Your task to perform on an android device: turn smart compose on in the gmail app Image 0: 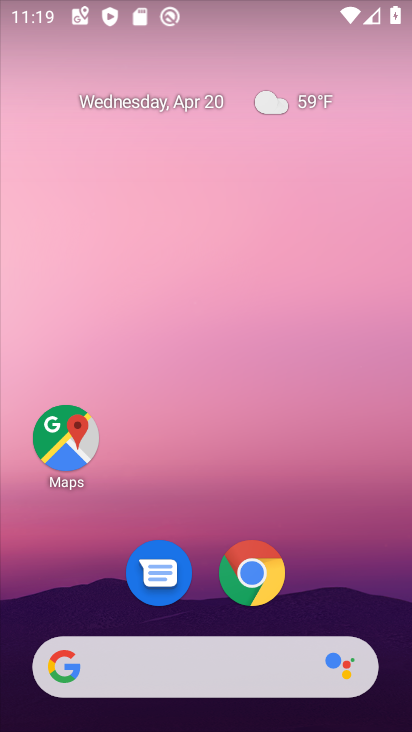
Step 0: drag from (353, 618) to (327, 9)
Your task to perform on an android device: turn smart compose on in the gmail app Image 1: 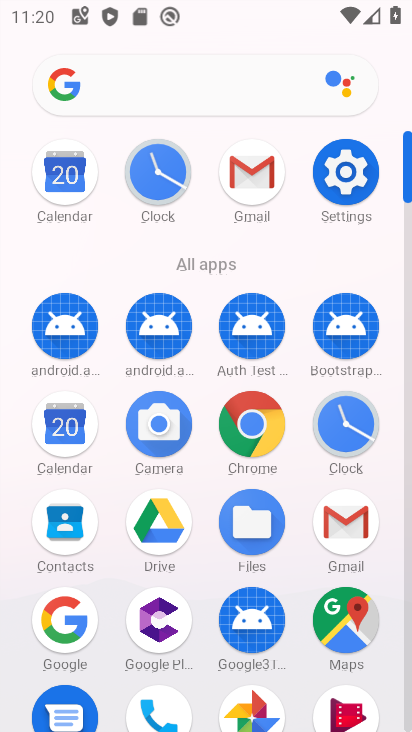
Step 1: click (253, 182)
Your task to perform on an android device: turn smart compose on in the gmail app Image 2: 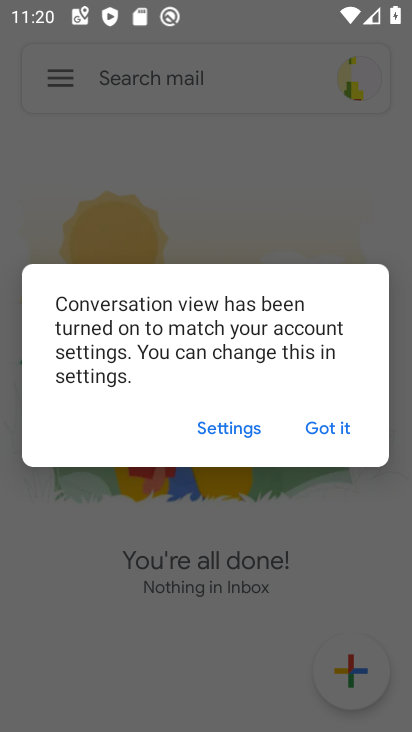
Step 2: click (323, 436)
Your task to perform on an android device: turn smart compose on in the gmail app Image 3: 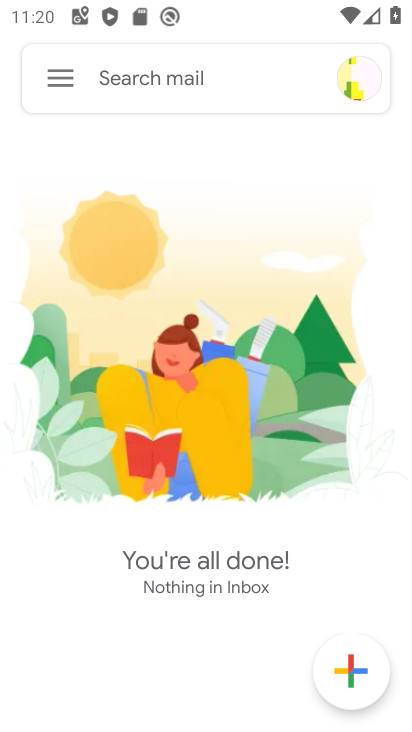
Step 3: click (62, 82)
Your task to perform on an android device: turn smart compose on in the gmail app Image 4: 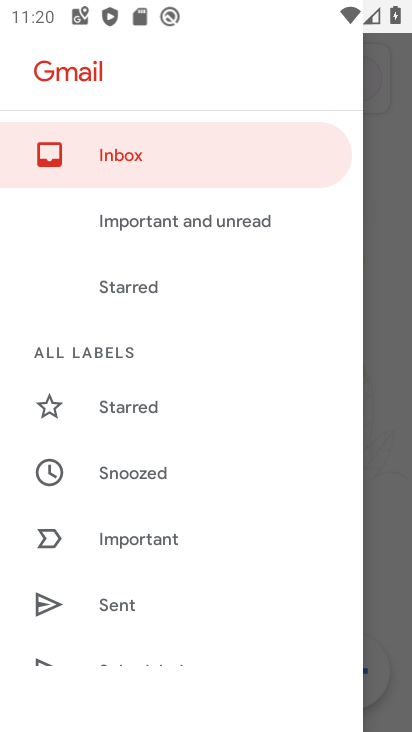
Step 4: drag from (137, 530) to (140, 122)
Your task to perform on an android device: turn smart compose on in the gmail app Image 5: 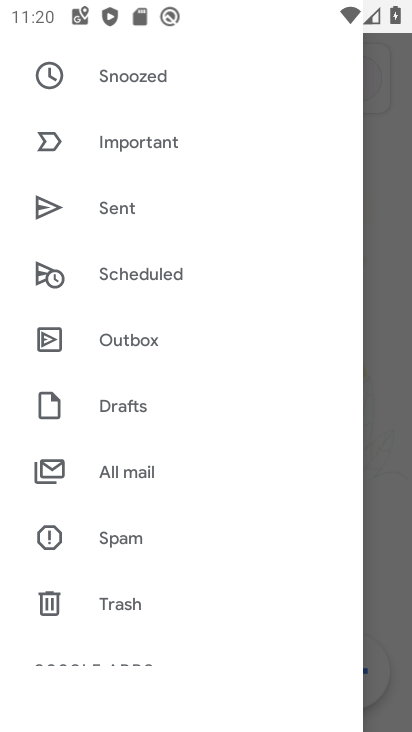
Step 5: drag from (117, 487) to (118, 145)
Your task to perform on an android device: turn smart compose on in the gmail app Image 6: 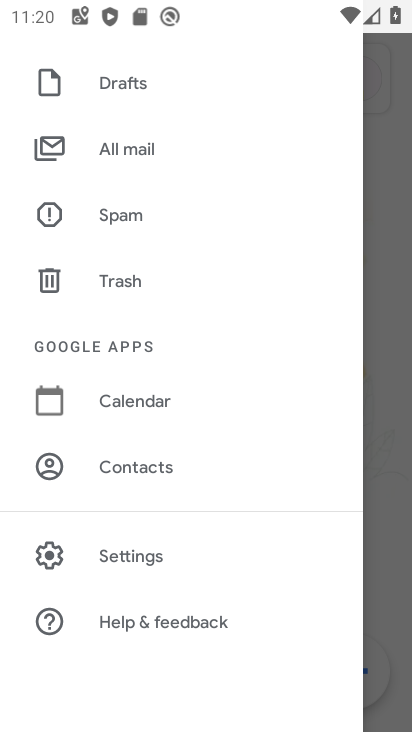
Step 6: click (98, 562)
Your task to perform on an android device: turn smart compose on in the gmail app Image 7: 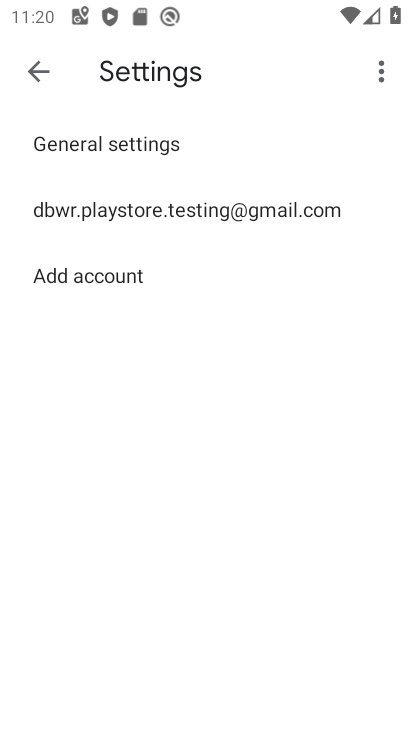
Step 7: click (82, 216)
Your task to perform on an android device: turn smart compose on in the gmail app Image 8: 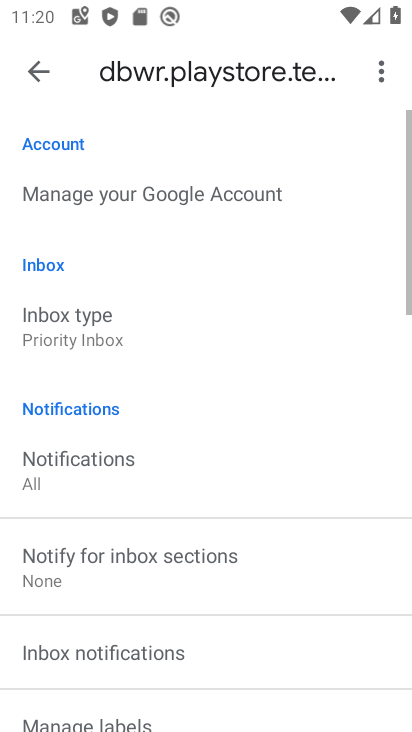
Step 8: task complete